Your task to perform on an android device: install app "Booking.com: Hotels and more" Image 0: 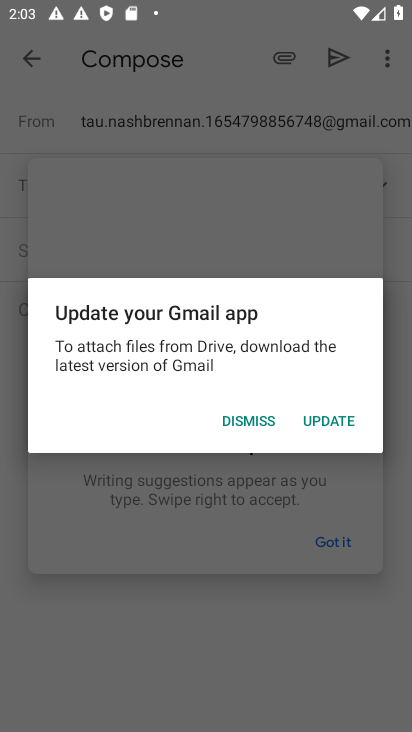
Step 0: press home button
Your task to perform on an android device: install app "Booking.com: Hotels and more" Image 1: 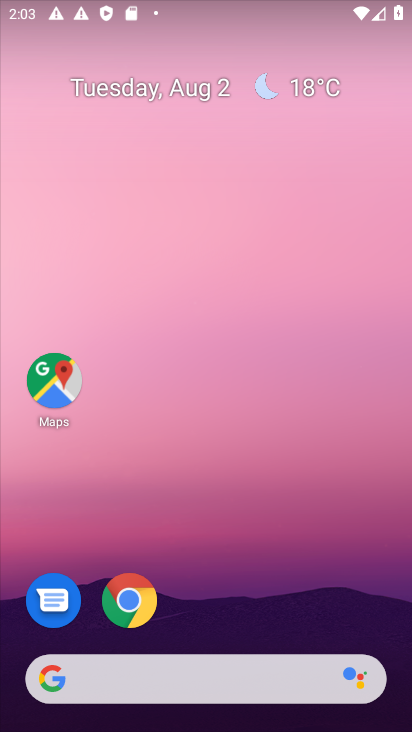
Step 1: drag from (141, 711) to (190, 77)
Your task to perform on an android device: install app "Booking.com: Hotels and more" Image 2: 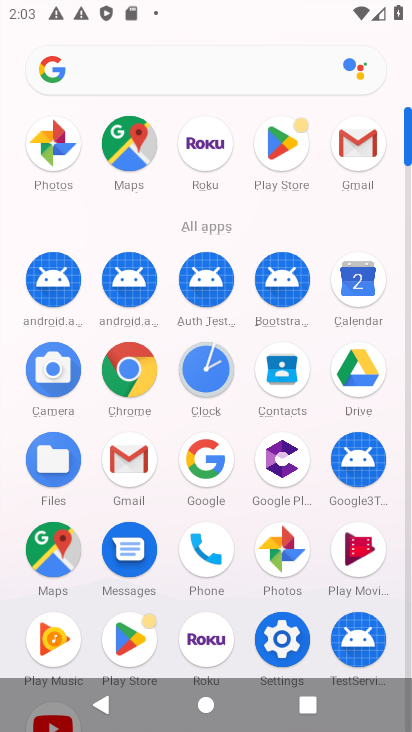
Step 2: click (276, 153)
Your task to perform on an android device: install app "Booking.com: Hotels and more" Image 3: 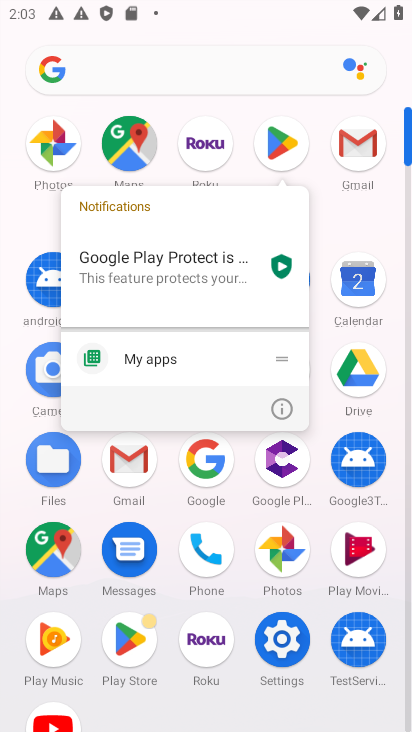
Step 3: click (296, 150)
Your task to perform on an android device: install app "Booking.com: Hotels and more" Image 4: 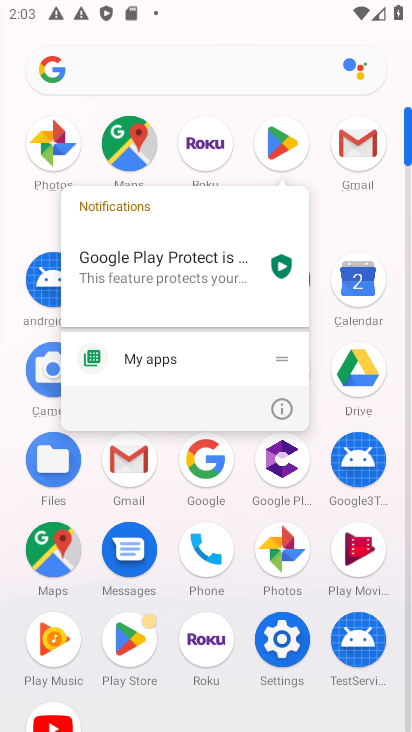
Step 4: click (296, 150)
Your task to perform on an android device: install app "Booking.com: Hotels and more" Image 5: 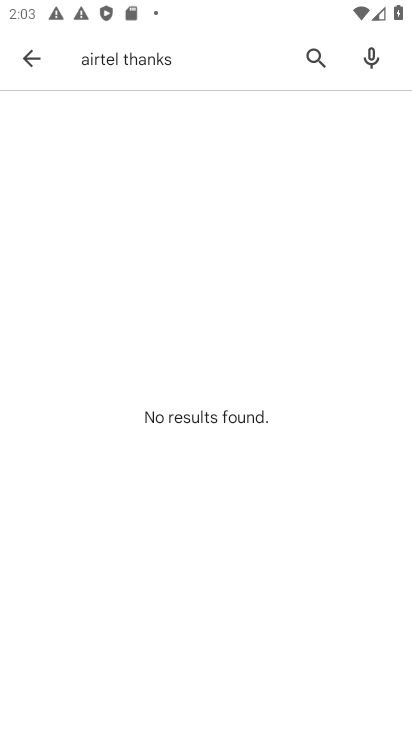
Step 5: click (319, 57)
Your task to perform on an android device: install app "Booking.com: Hotels and more" Image 6: 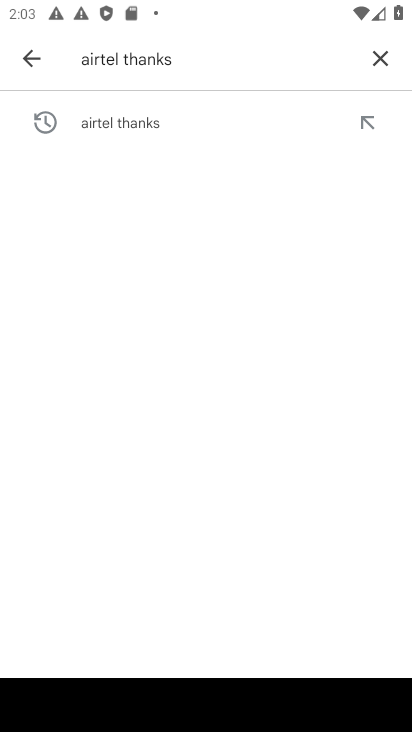
Step 6: click (375, 55)
Your task to perform on an android device: install app "Booking.com: Hotels and more" Image 7: 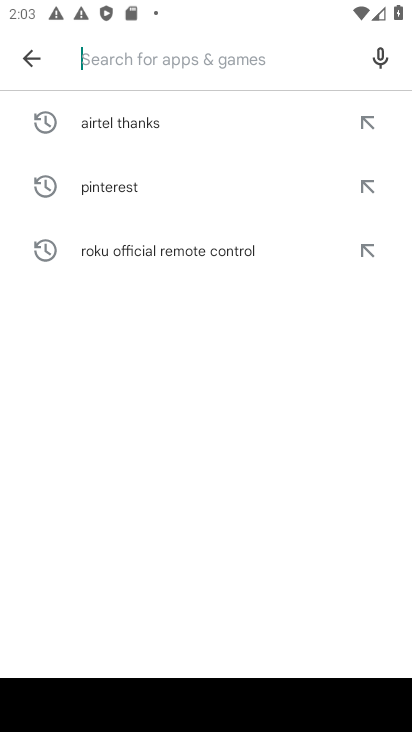
Step 7: type "booking.com"
Your task to perform on an android device: install app "Booking.com: Hotels and more" Image 8: 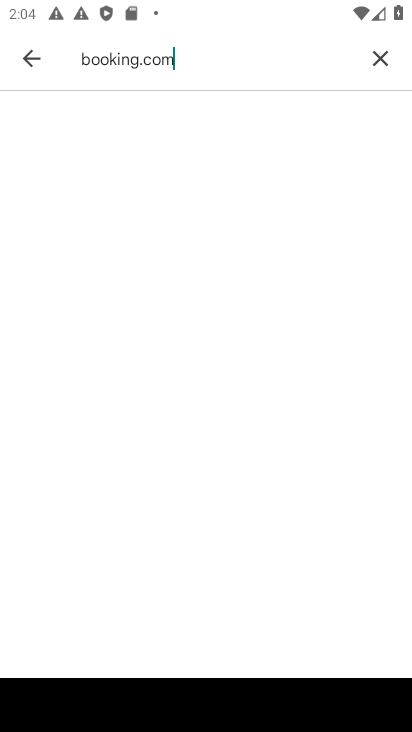
Step 8: press enter
Your task to perform on an android device: install app "Booking.com: Hotels and more" Image 9: 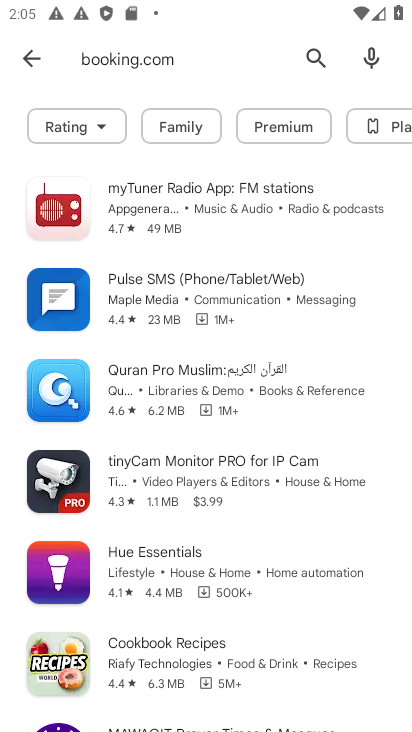
Step 9: task complete